Your task to perform on an android device: Find coffee shops on Maps Image 0: 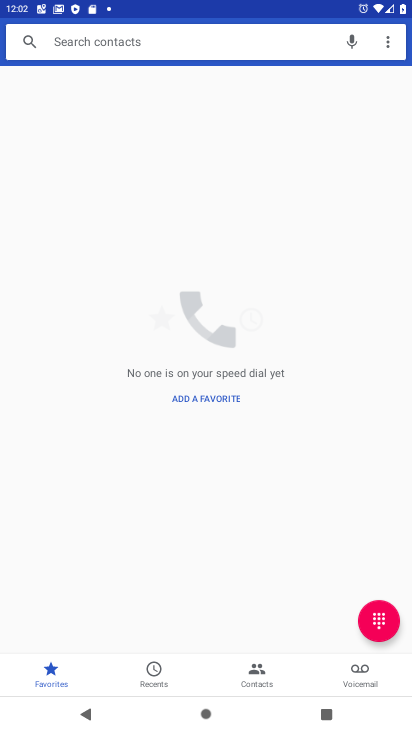
Step 0: press home button
Your task to perform on an android device: Find coffee shops on Maps Image 1: 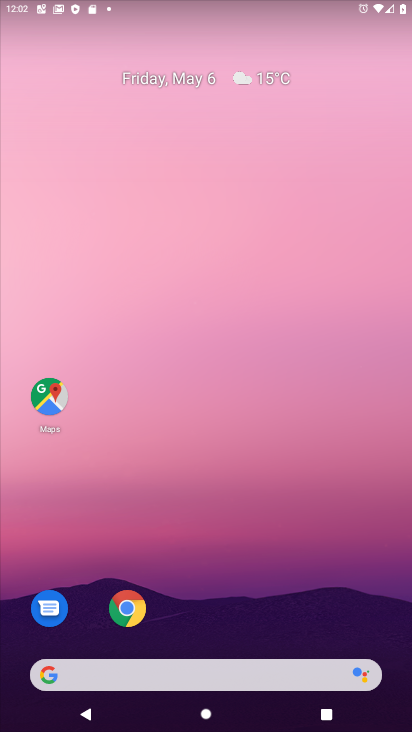
Step 1: click (51, 400)
Your task to perform on an android device: Find coffee shops on Maps Image 2: 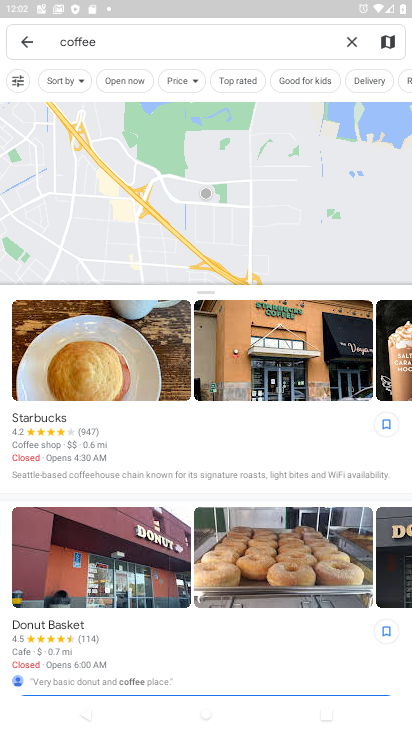
Step 2: click (160, 43)
Your task to perform on an android device: Find coffee shops on Maps Image 3: 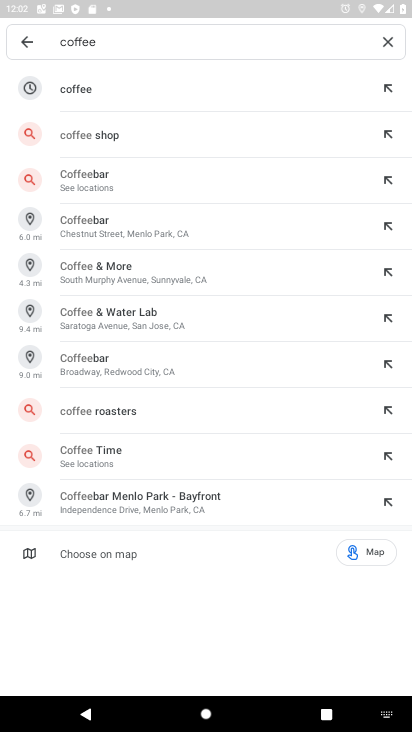
Step 3: click (152, 136)
Your task to perform on an android device: Find coffee shops on Maps Image 4: 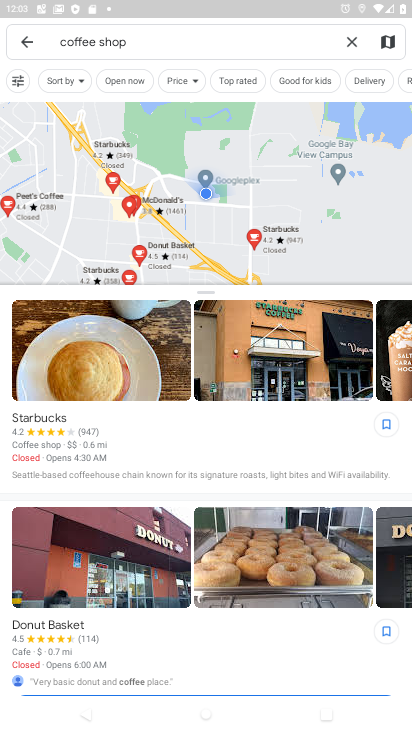
Step 4: task complete